Your task to perform on an android device: Search for "usb-b" on costco, select the first entry, add it to the cart, then select checkout. Image 0: 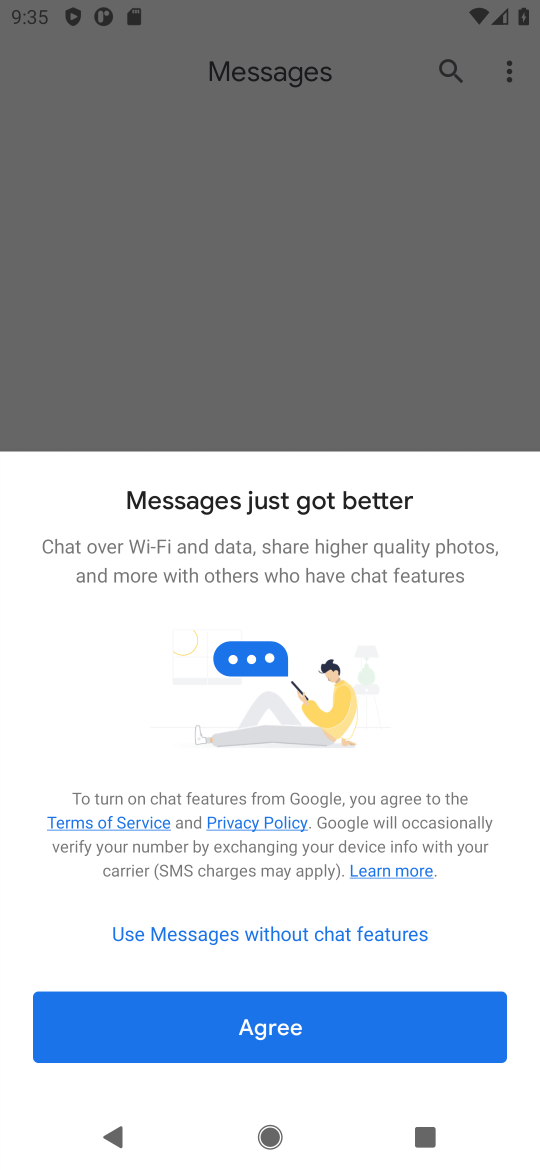
Step 0: press home button
Your task to perform on an android device: Search for "usb-b" on costco, select the first entry, add it to the cart, then select checkout. Image 1: 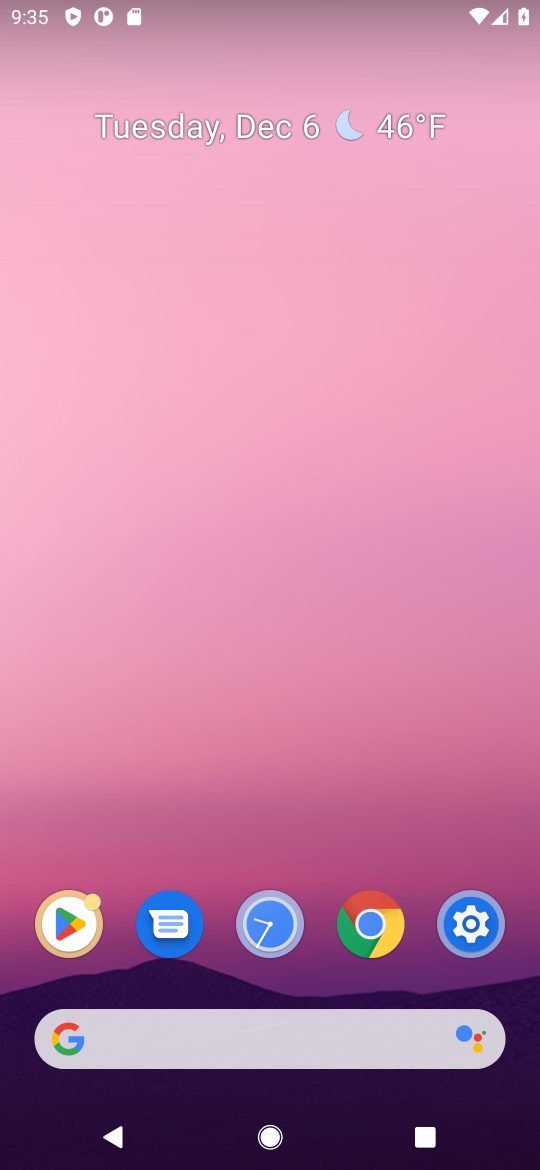
Step 1: click (284, 1024)
Your task to perform on an android device: Search for "usb-b" on costco, select the first entry, add it to the cart, then select checkout. Image 2: 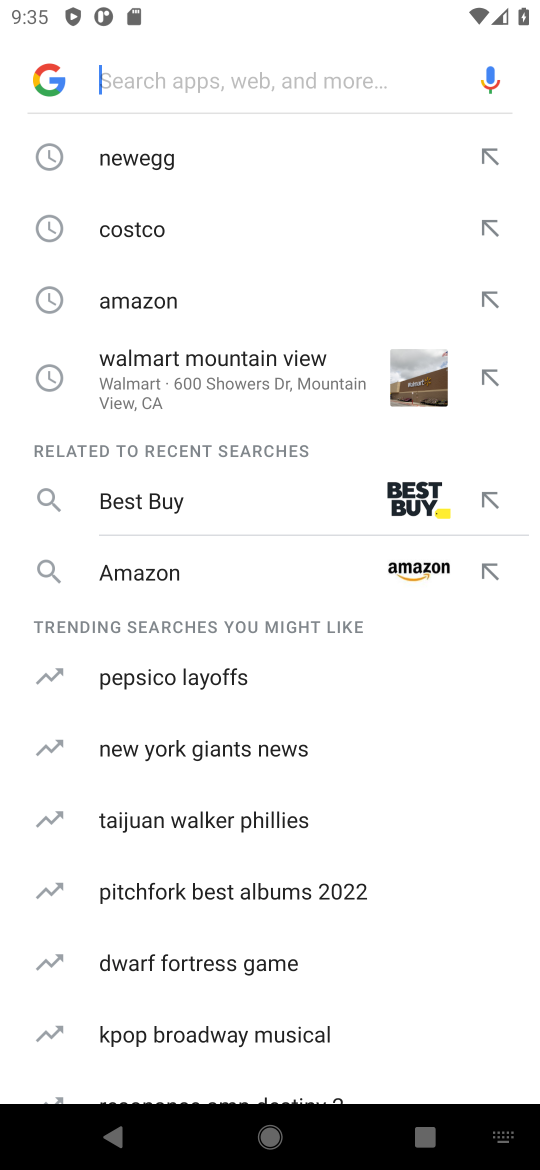
Step 2: type "costco"
Your task to perform on an android device: Search for "usb-b" on costco, select the first entry, add it to the cart, then select checkout. Image 3: 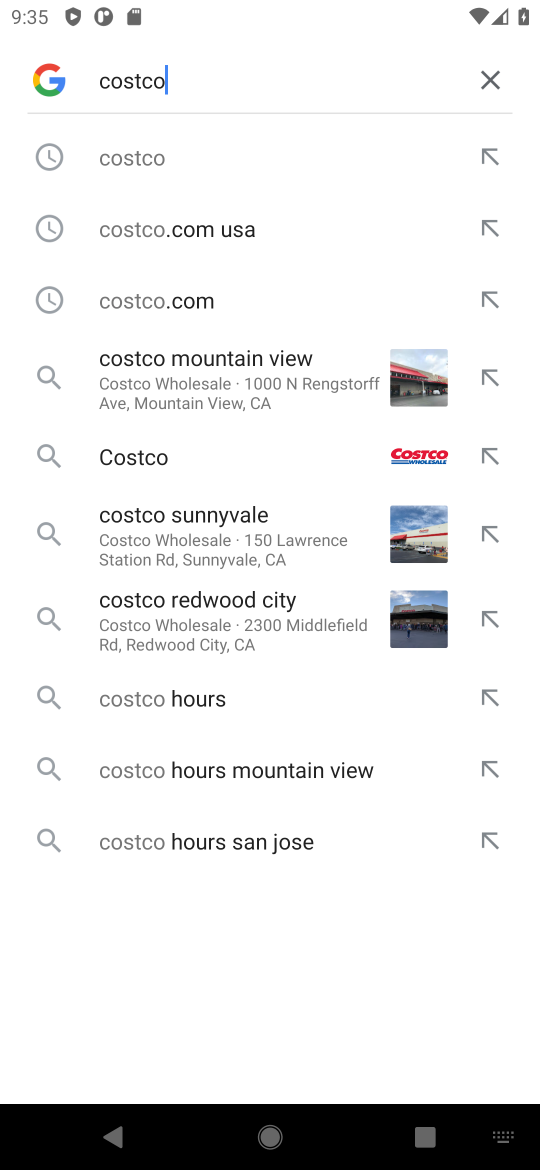
Step 3: click (142, 158)
Your task to perform on an android device: Search for "usb-b" on costco, select the first entry, add it to the cart, then select checkout. Image 4: 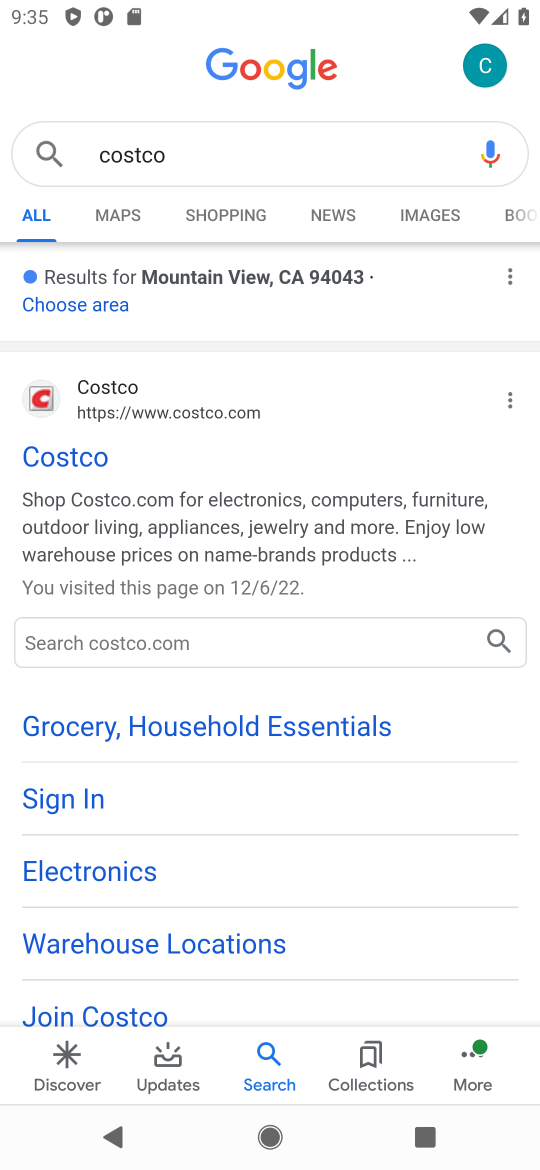
Step 4: click (73, 469)
Your task to perform on an android device: Search for "usb-b" on costco, select the first entry, add it to the cart, then select checkout. Image 5: 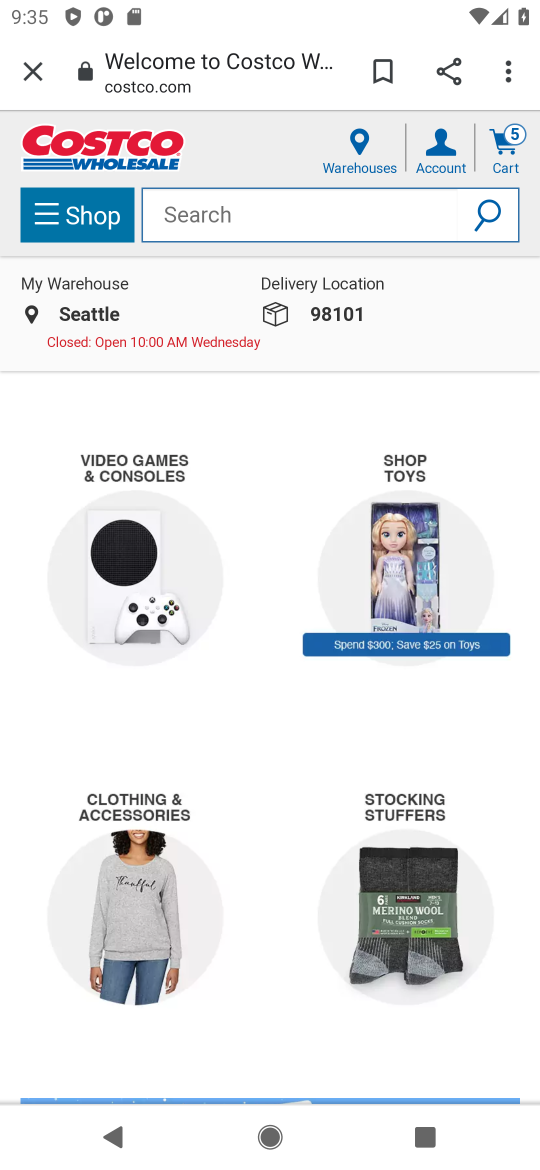
Step 5: click (167, 222)
Your task to perform on an android device: Search for "usb-b" on costco, select the first entry, add it to the cart, then select checkout. Image 6: 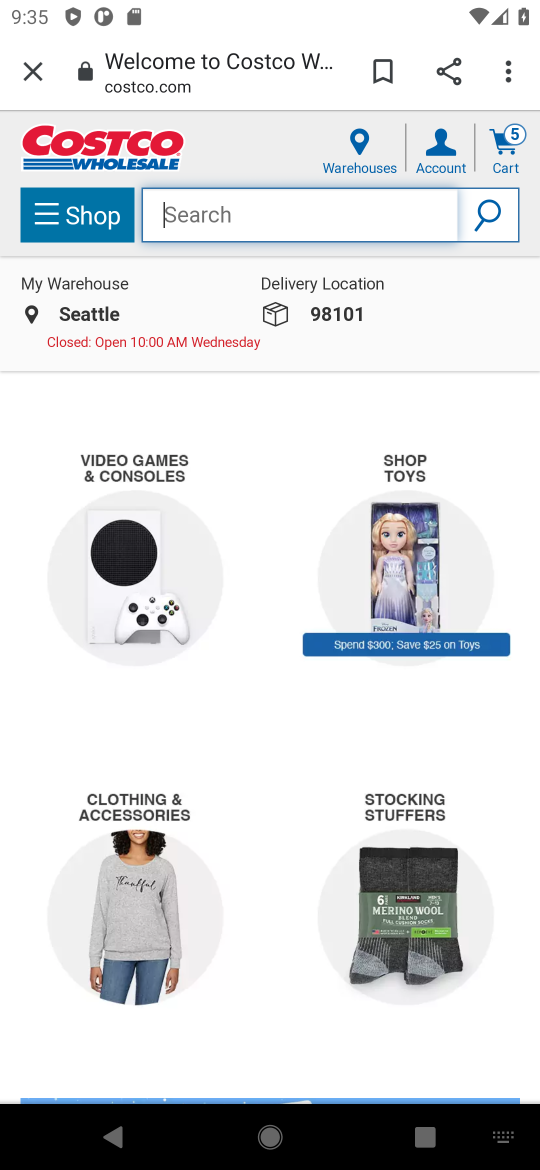
Step 6: type "usb-b"
Your task to perform on an android device: Search for "usb-b" on costco, select the first entry, add it to the cart, then select checkout. Image 7: 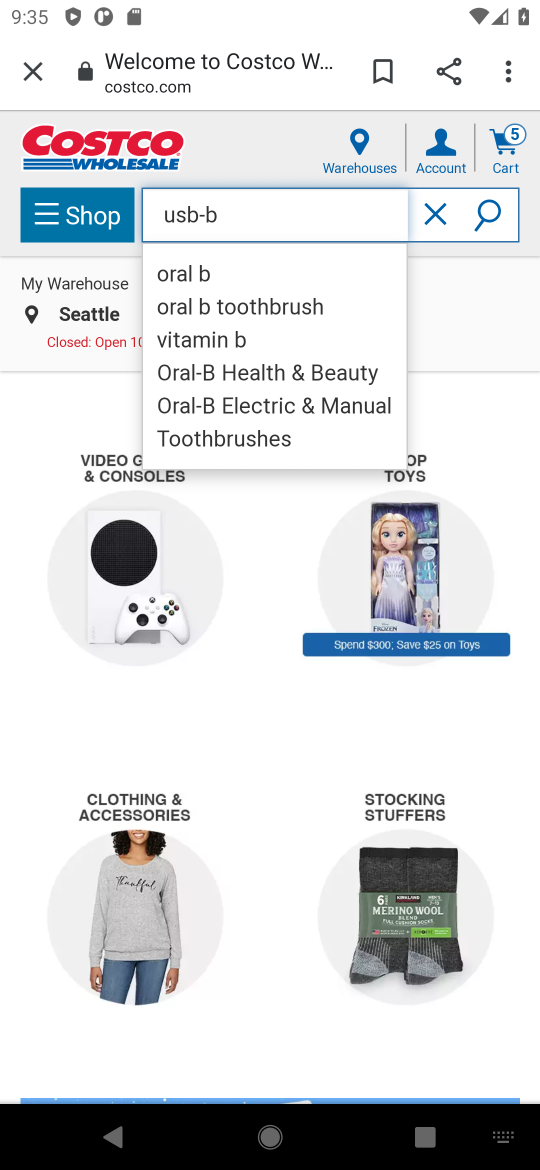
Step 7: click (512, 223)
Your task to perform on an android device: Search for "usb-b" on costco, select the first entry, add it to the cart, then select checkout. Image 8: 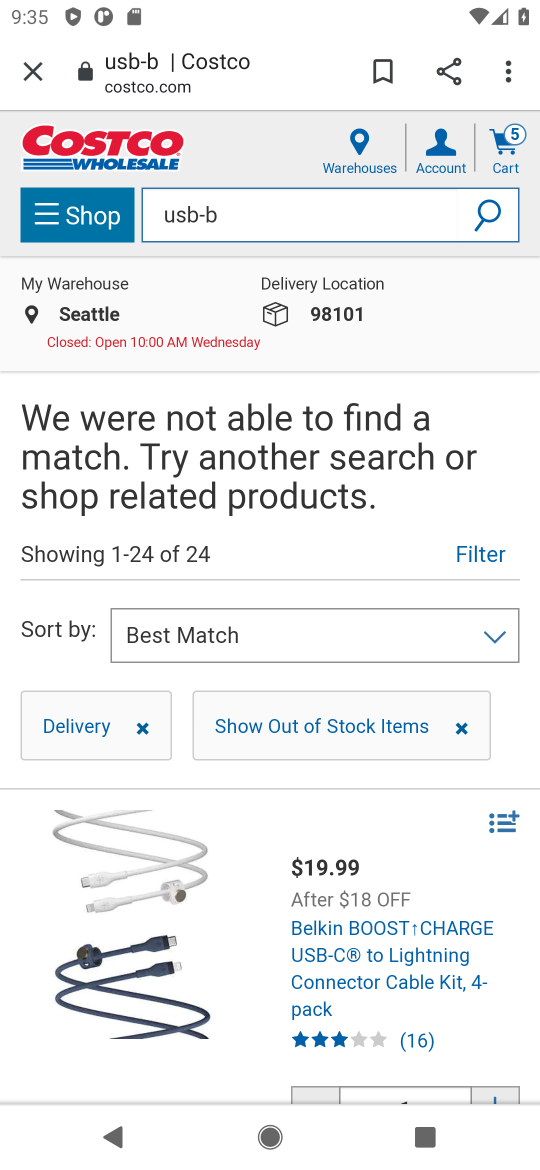
Step 8: drag from (224, 954) to (217, 342)
Your task to perform on an android device: Search for "usb-b" on costco, select the first entry, add it to the cart, then select checkout. Image 9: 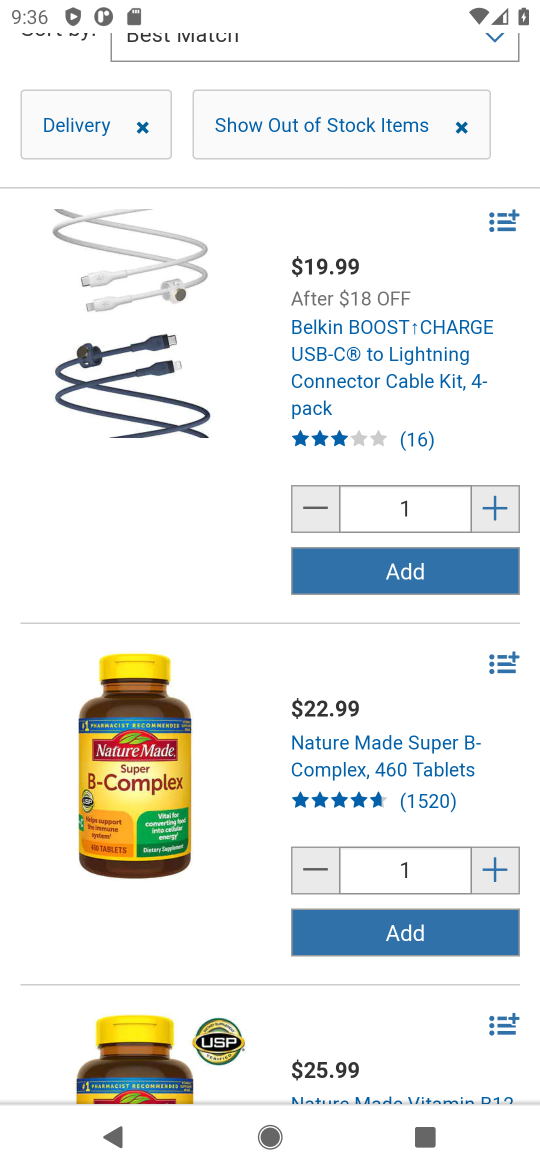
Step 9: click (406, 590)
Your task to perform on an android device: Search for "usb-b" on costco, select the first entry, add it to the cart, then select checkout. Image 10: 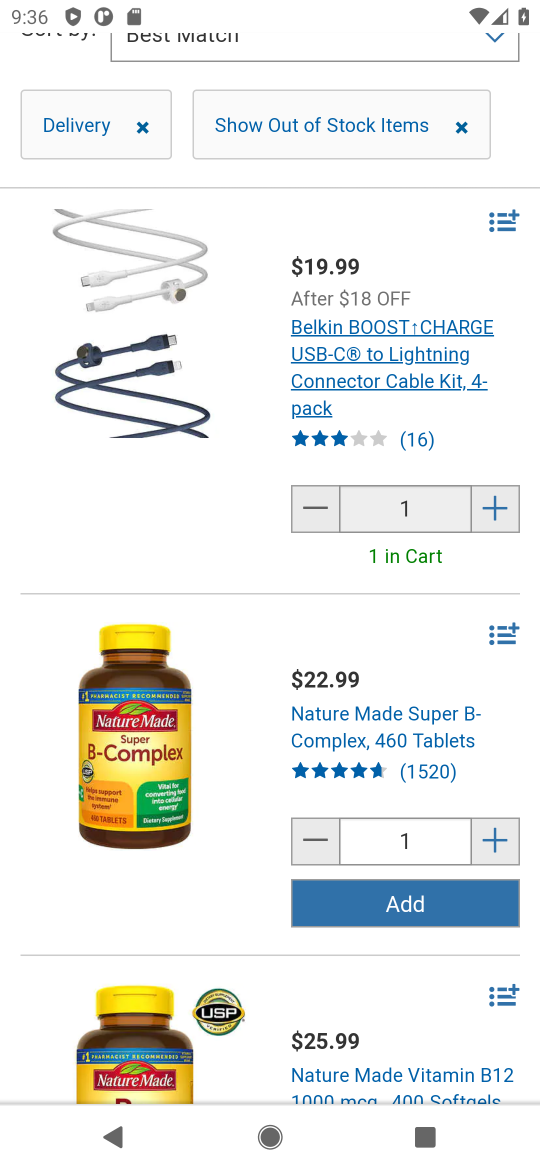
Step 10: task complete